Your task to perform on an android device: open app "Google Find My Device" Image 0: 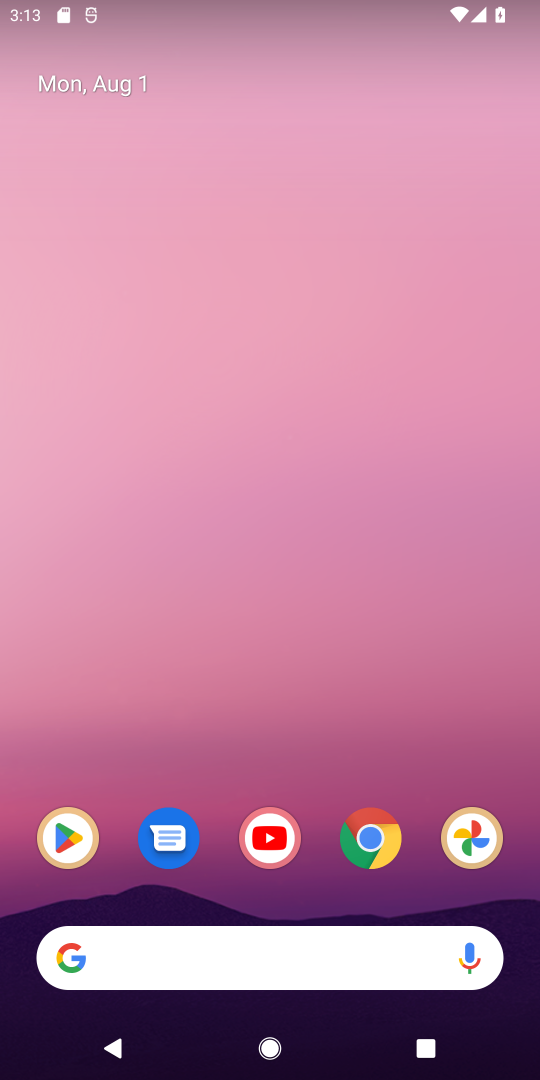
Step 0: click (42, 833)
Your task to perform on an android device: open app "Google Find My Device" Image 1: 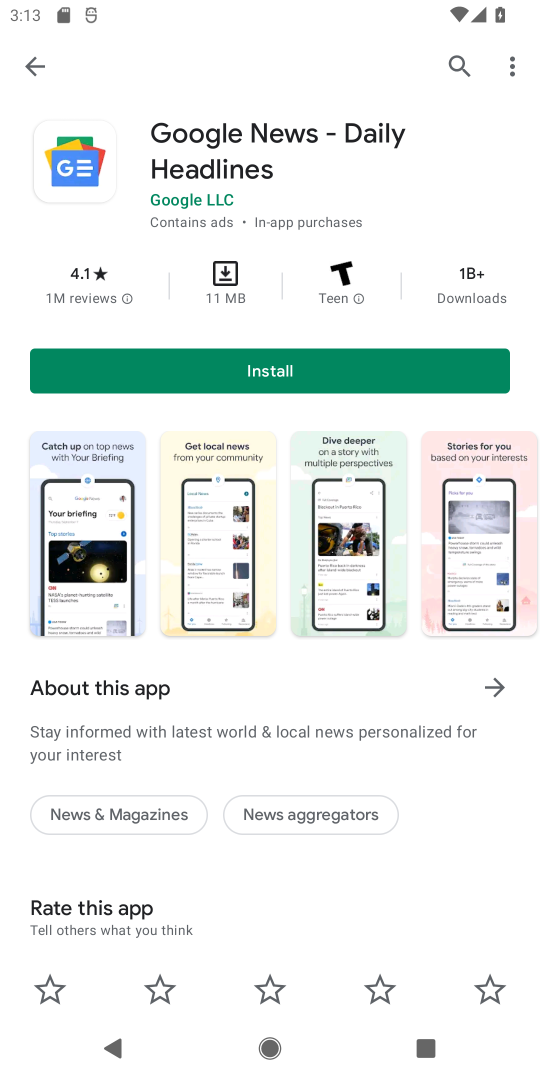
Step 1: click (453, 71)
Your task to perform on an android device: open app "Google Find My Device" Image 2: 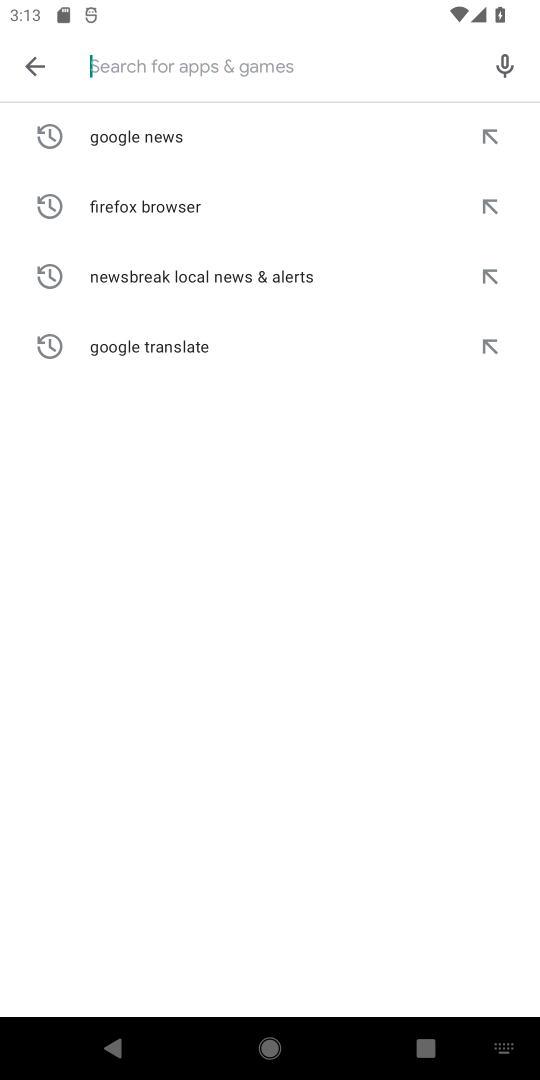
Step 2: type "Google Find My Device"
Your task to perform on an android device: open app "Google Find My Device" Image 3: 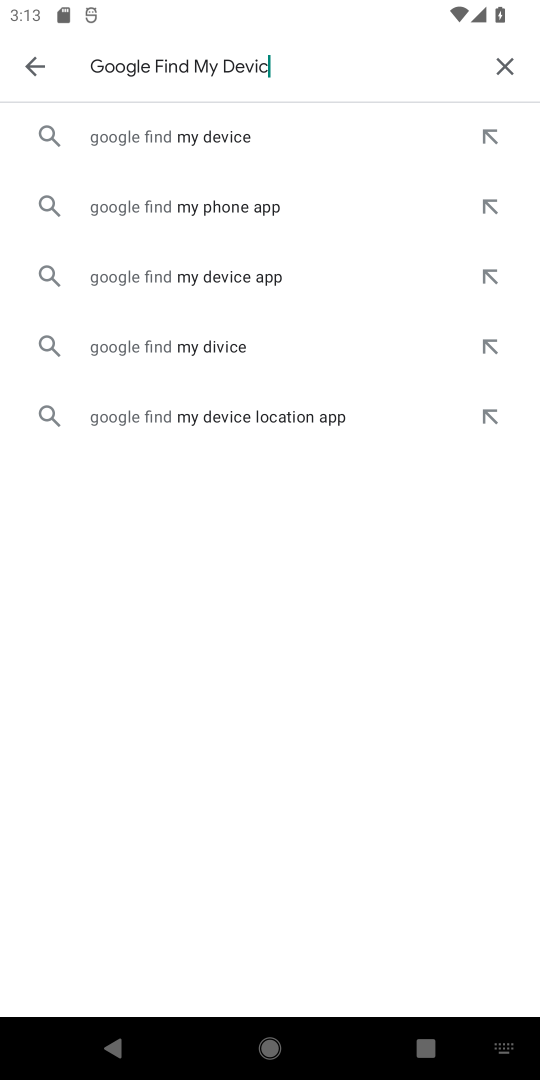
Step 3: type ""
Your task to perform on an android device: open app "Google Find My Device" Image 4: 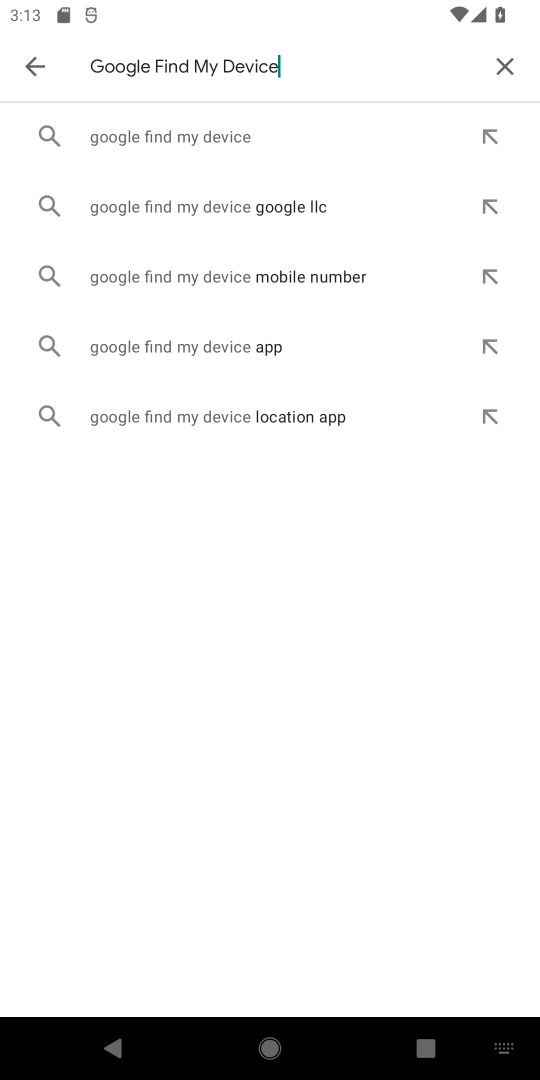
Step 4: click (192, 127)
Your task to perform on an android device: open app "Google Find My Device" Image 5: 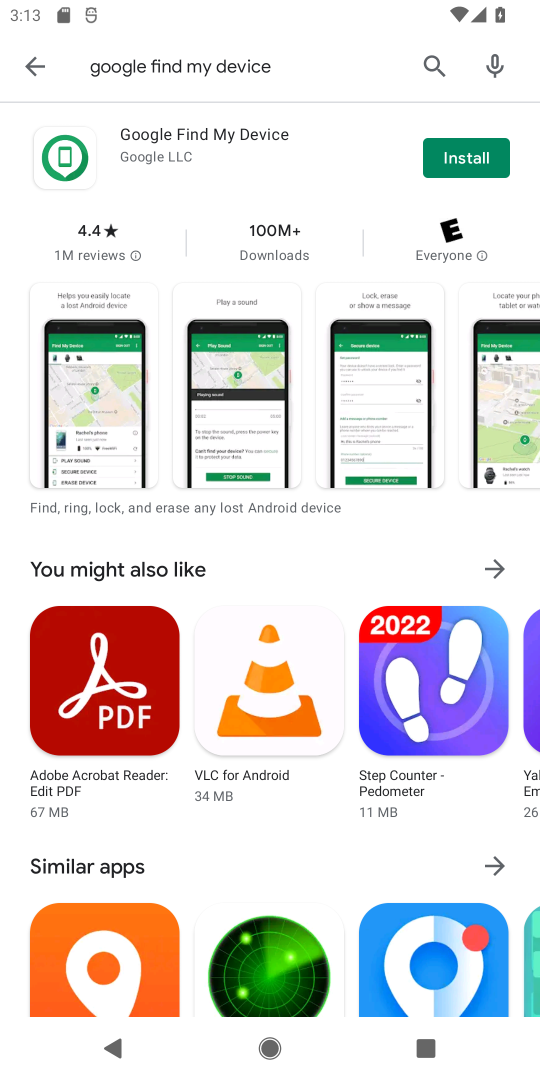
Step 5: task complete